Your task to perform on an android device: Empty the shopping cart on costco. Add "duracell triple a" to the cart on costco Image 0: 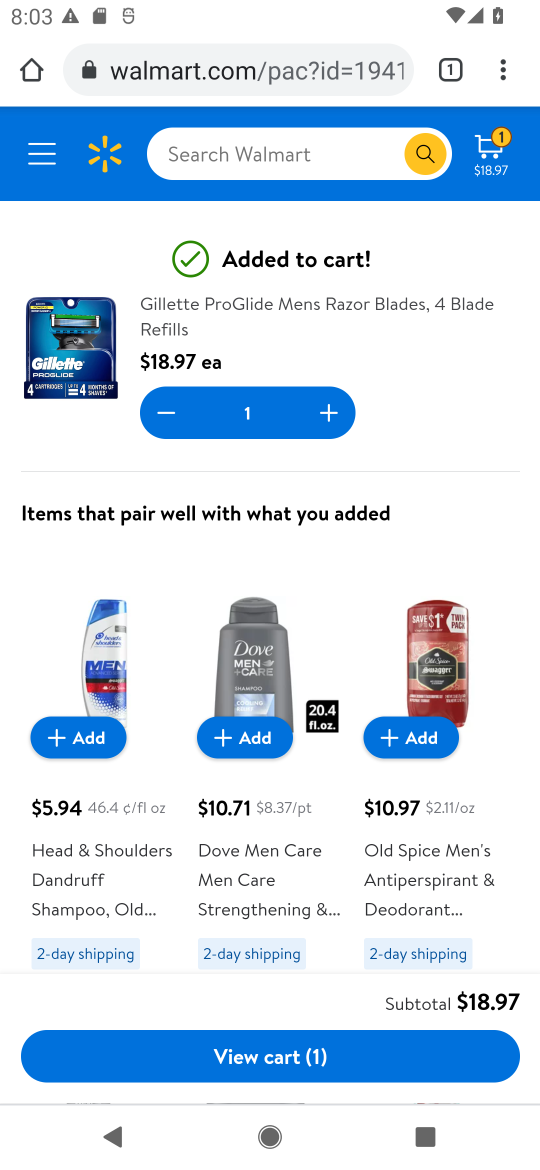
Step 0: press home button
Your task to perform on an android device: Empty the shopping cart on costco. Add "duracell triple a" to the cart on costco Image 1: 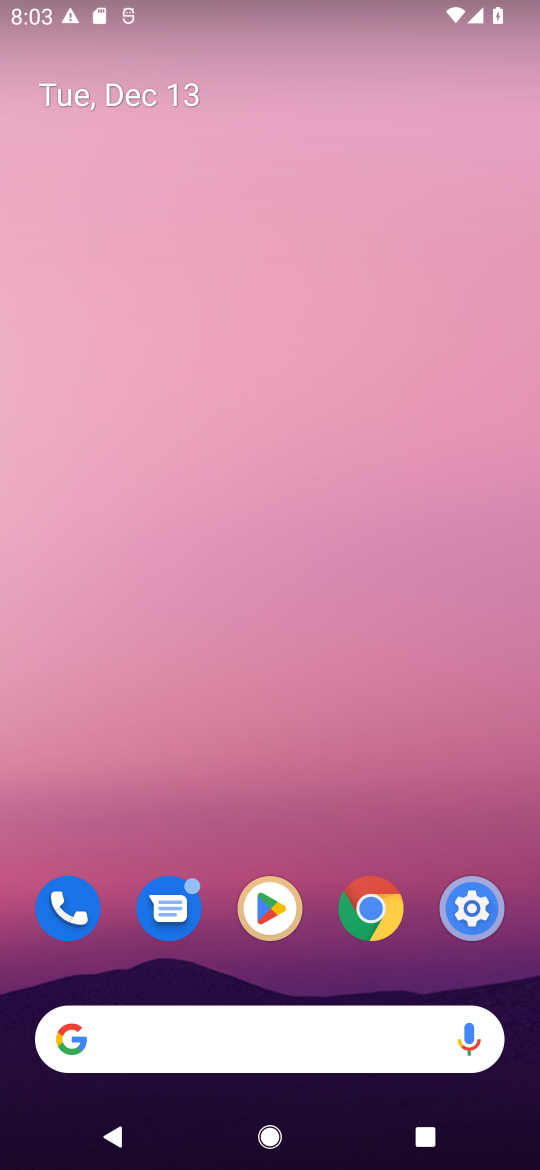
Step 1: click (102, 1033)
Your task to perform on an android device: Empty the shopping cart on costco. Add "duracell triple a" to the cart on costco Image 2: 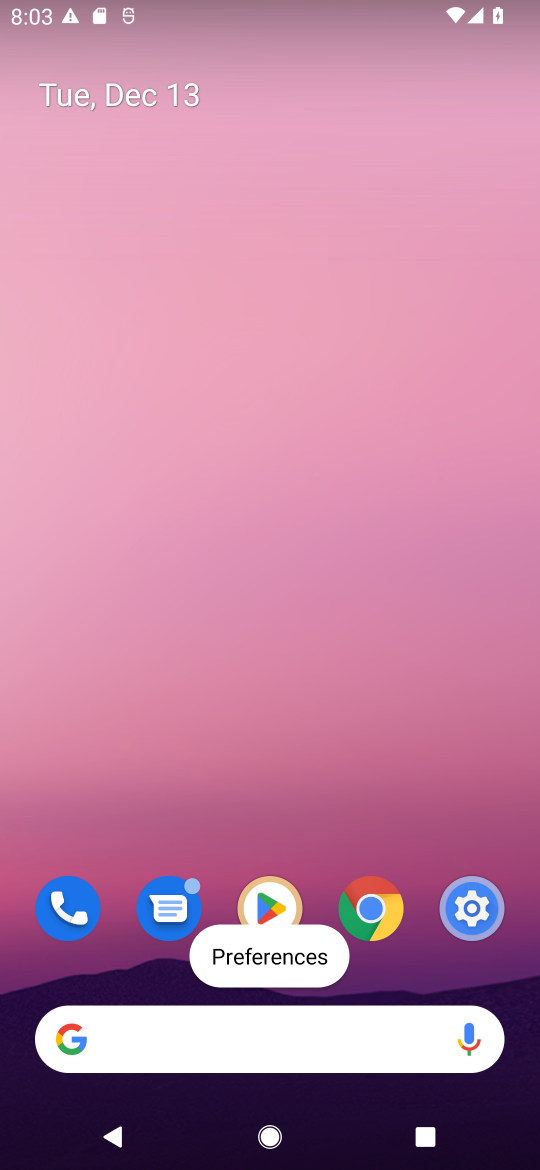
Step 2: click (117, 1052)
Your task to perform on an android device: Empty the shopping cart on costco. Add "duracell triple a" to the cart on costco Image 3: 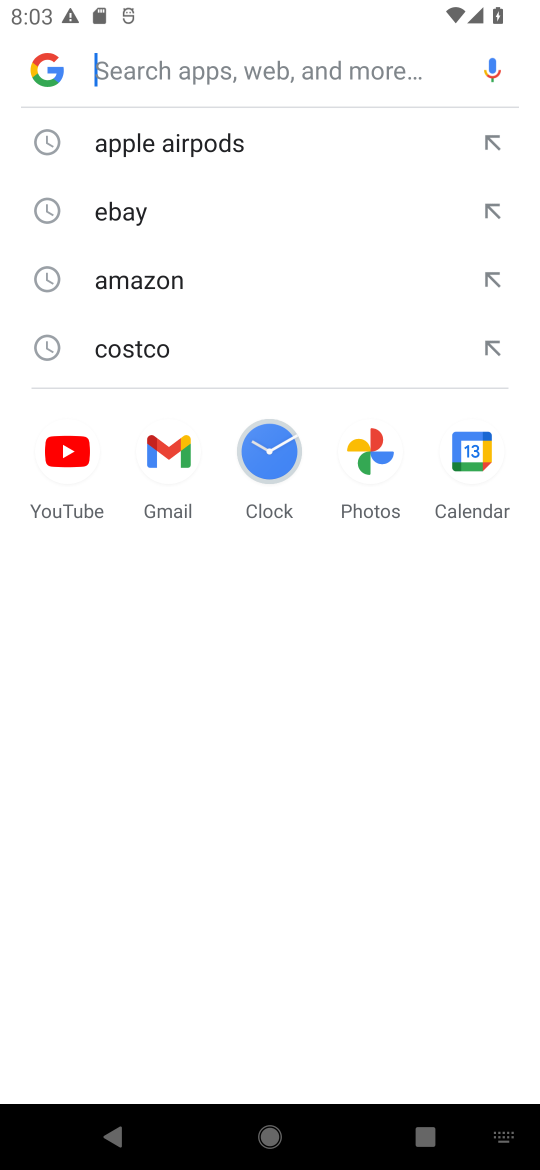
Step 3: type "costco"
Your task to perform on an android device: Empty the shopping cart on costco. Add "duracell triple a" to the cart on costco Image 4: 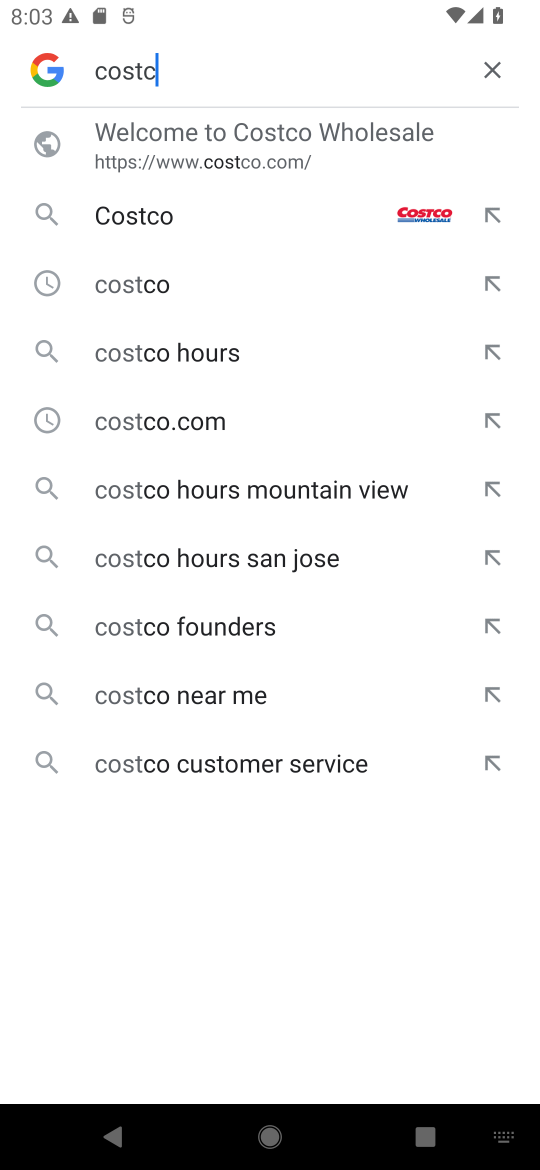
Step 4: press enter
Your task to perform on an android device: Empty the shopping cart on costco. Add "duracell triple a" to the cart on costco Image 5: 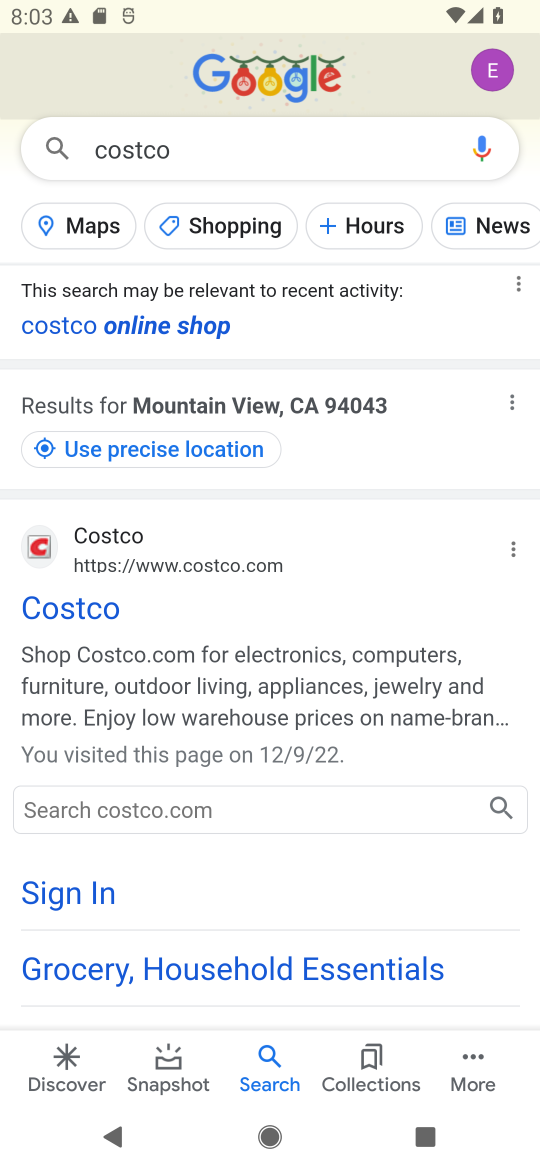
Step 5: click (71, 618)
Your task to perform on an android device: Empty the shopping cart on costco. Add "duracell triple a" to the cart on costco Image 6: 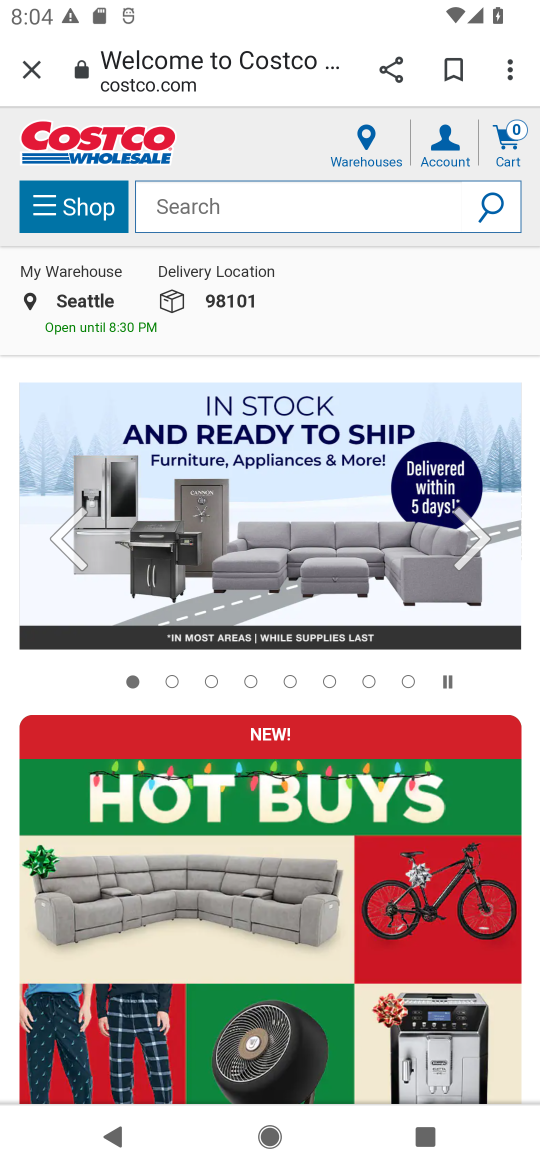
Step 6: click (501, 138)
Your task to perform on an android device: Empty the shopping cart on costco. Add "duracell triple a" to the cart on costco Image 7: 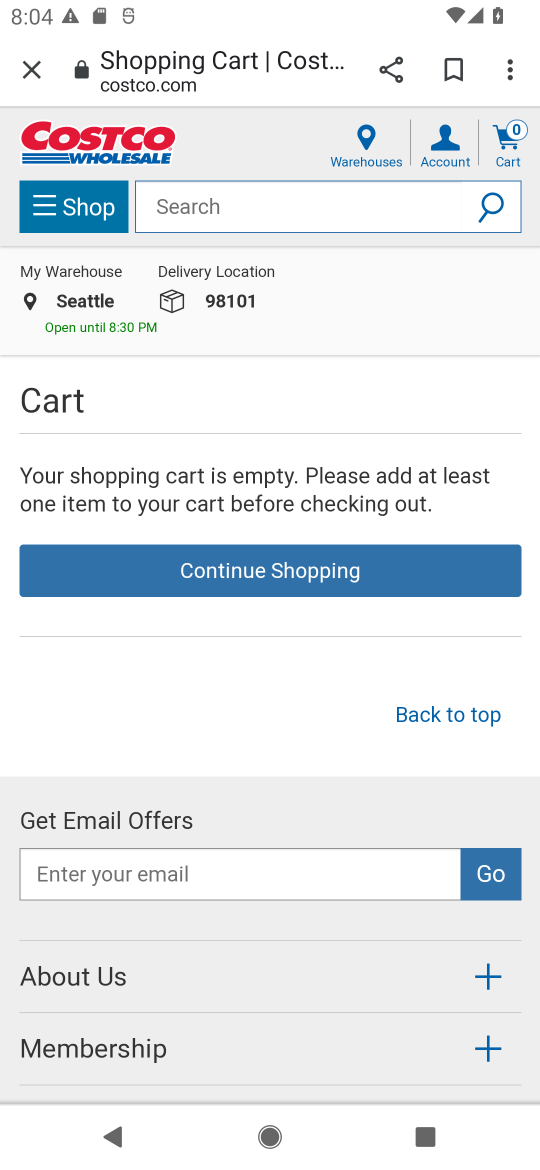
Step 7: click (167, 207)
Your task to perform on an android device: Empty the shopping cart on costco. Add "duracell triple a" to the cart on costco Image 8: 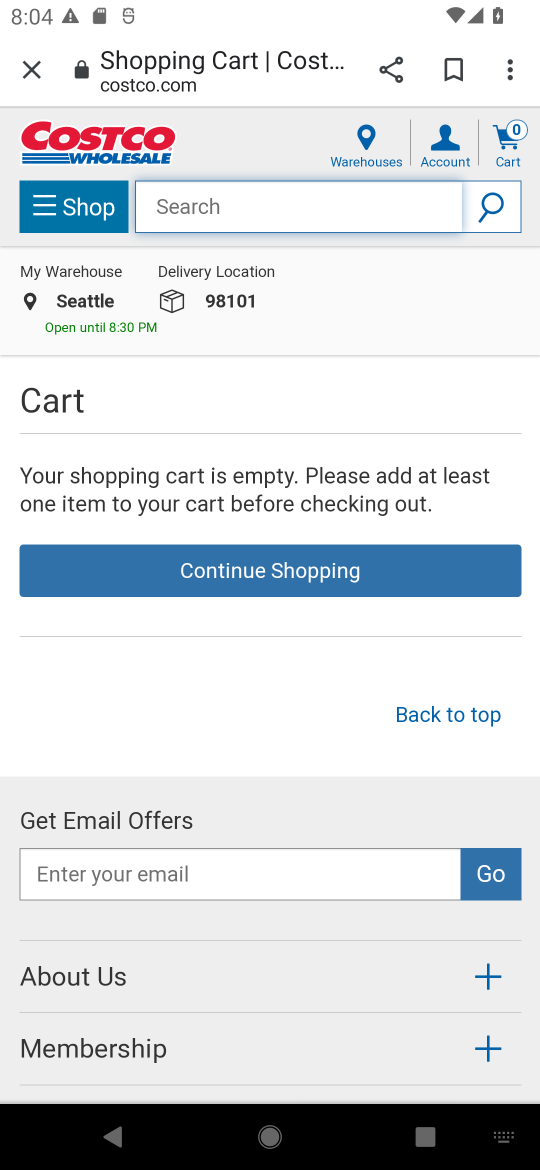
Step 8: type "duracell triple a"
Your task to perform on an android device: Empty the shopping cart on costco. Add "duracell triple a" to the cart on costco Image 9: 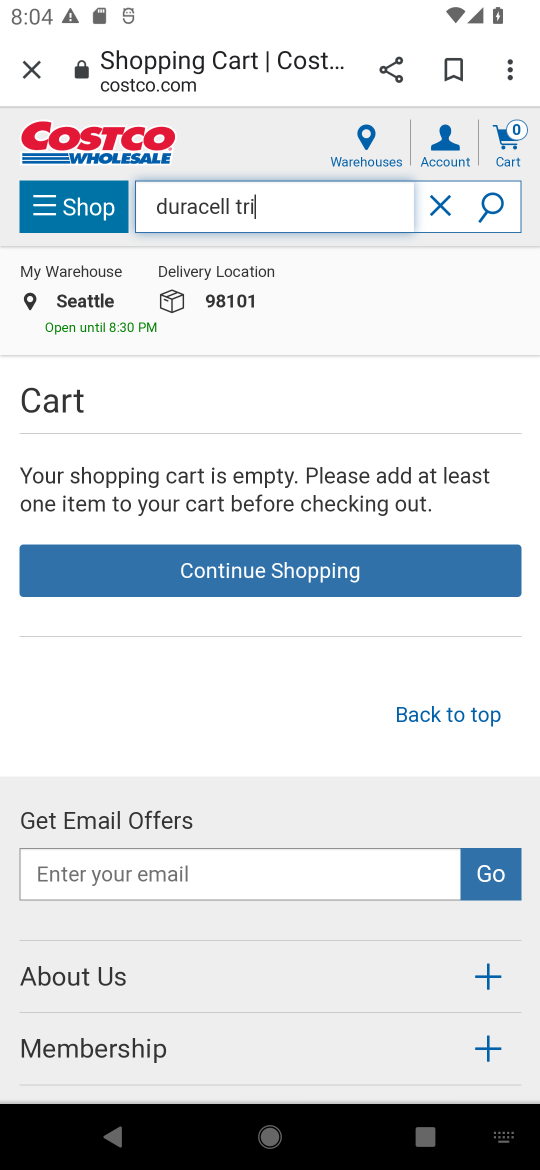
Step 9: press enter
Your task to perform on an android device: Empty the shopping cart on costco. Add "duracell triple a" to the cart on costco Image 10: 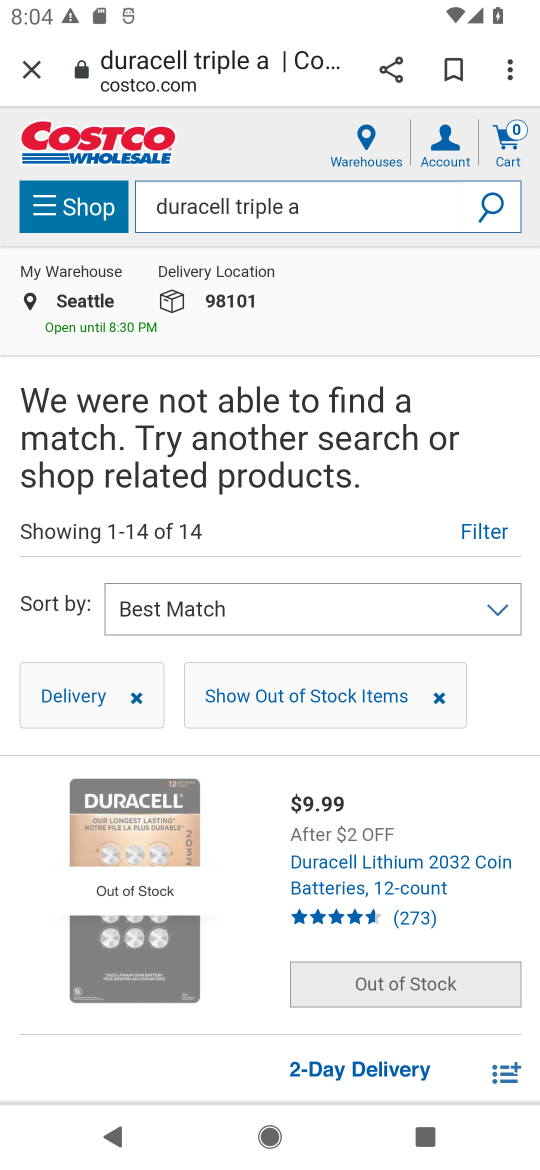
Step 10: click (498, 198)
Your task to perform on an android device: Empty the shopping cart on costco. Add "duracell triple a" to the cart on costco Image 11: 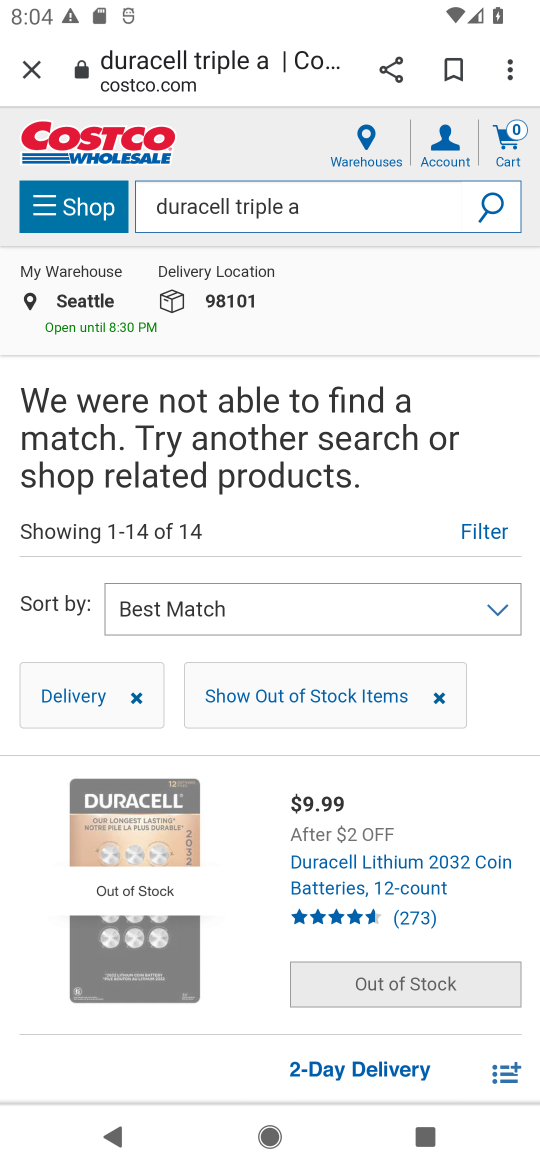
Step 11: drag from (373, 899) to (377, 628)
Your task to perform on an android device: Empty the shopping cart on costco. Add "duracell triple a" to the cart on costco Image 12: 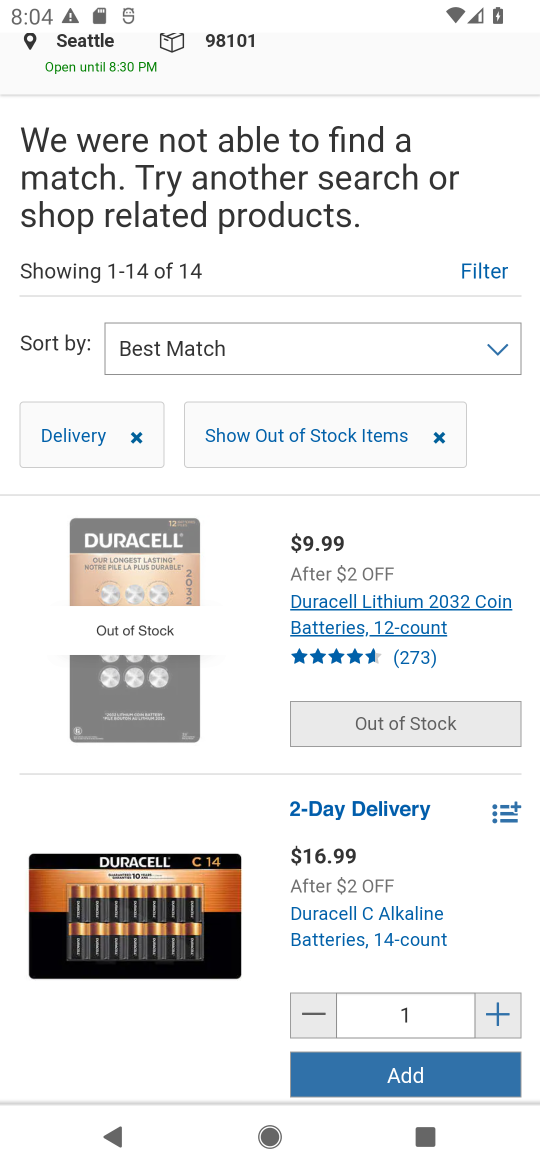
Step 12: drag from (383, 949) to (382, 588)
Your task to perform on an android device: Empty the shopping cart on costco. Add "duracell triple a" to the cart on costco Image 13: 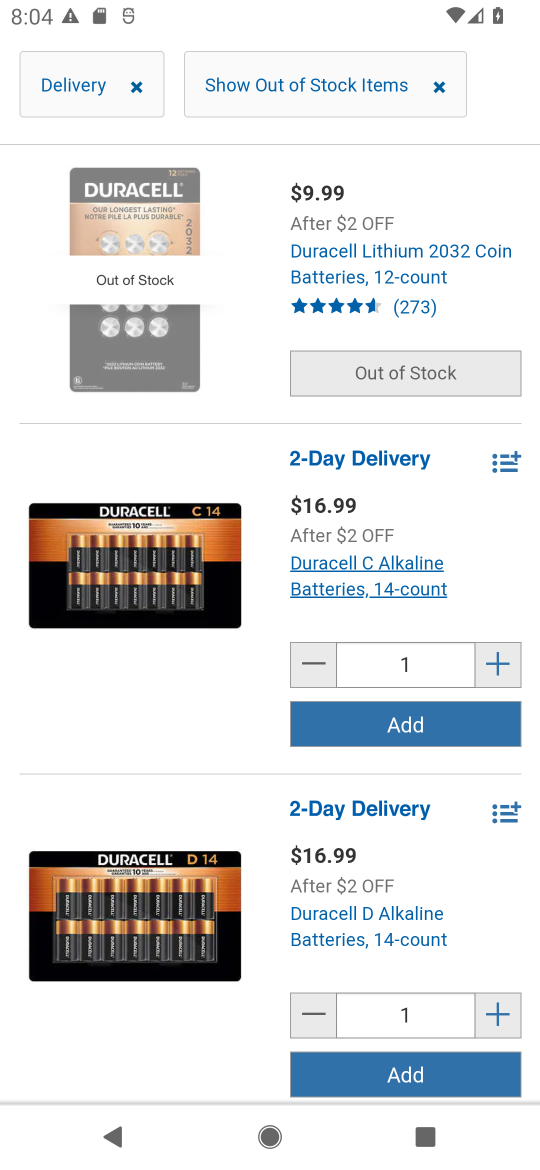
Step 13: click (381, 717)
Your task to perform on an android device: Empty the shopping cart on costco. Add "duracell triple a" to the cart on costco Image 14: 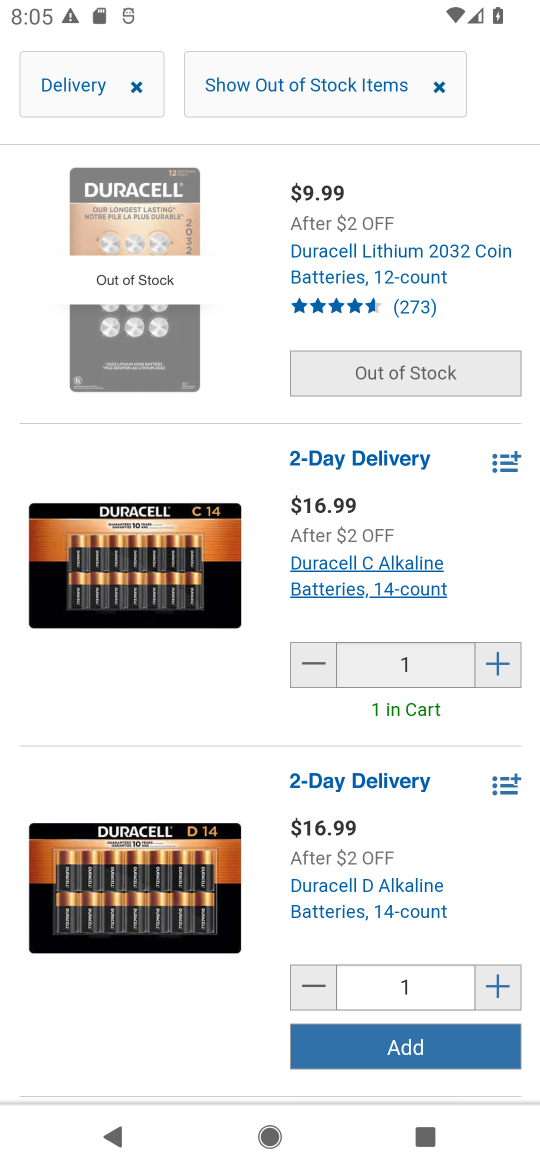
Step 14: task complete